Your task to perform on an android device: What time is it in London? Image 0: 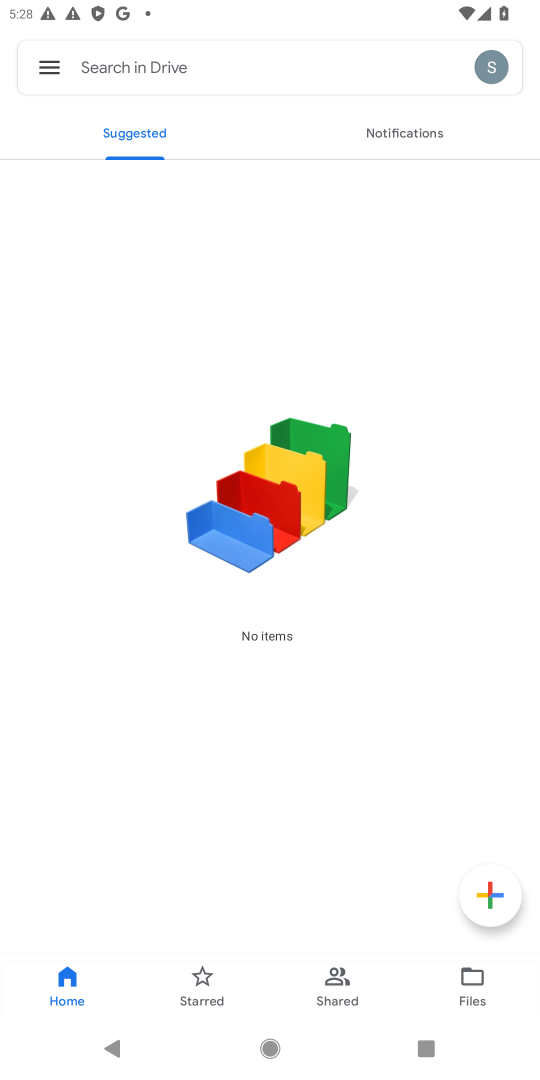
Step 0: press home button
Your task to perform on an android device: What time is it in London? Image 1: 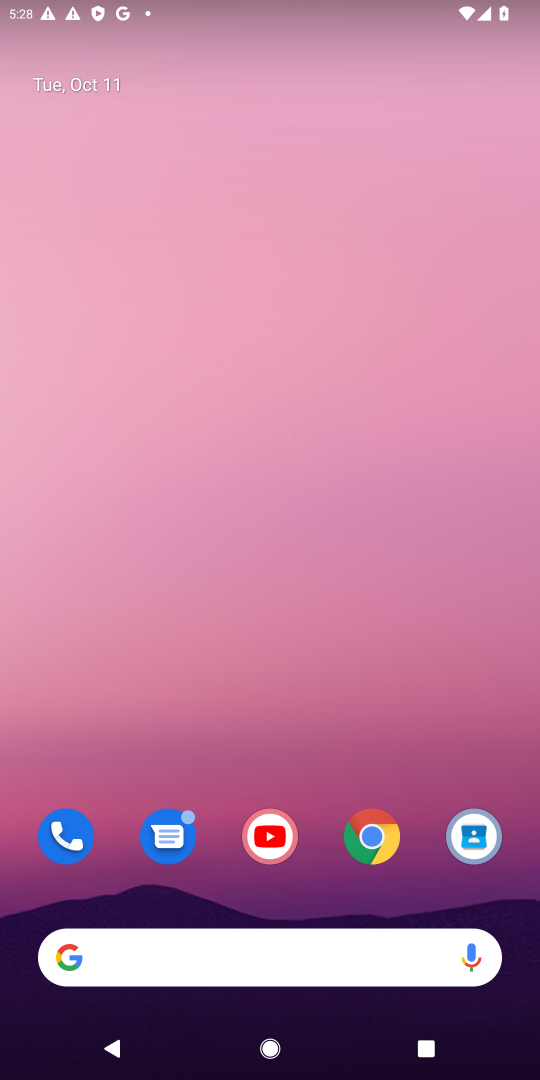
Step 1: click (369, 838)
Your task to perform on an android device: What time is it in London? Image 2: 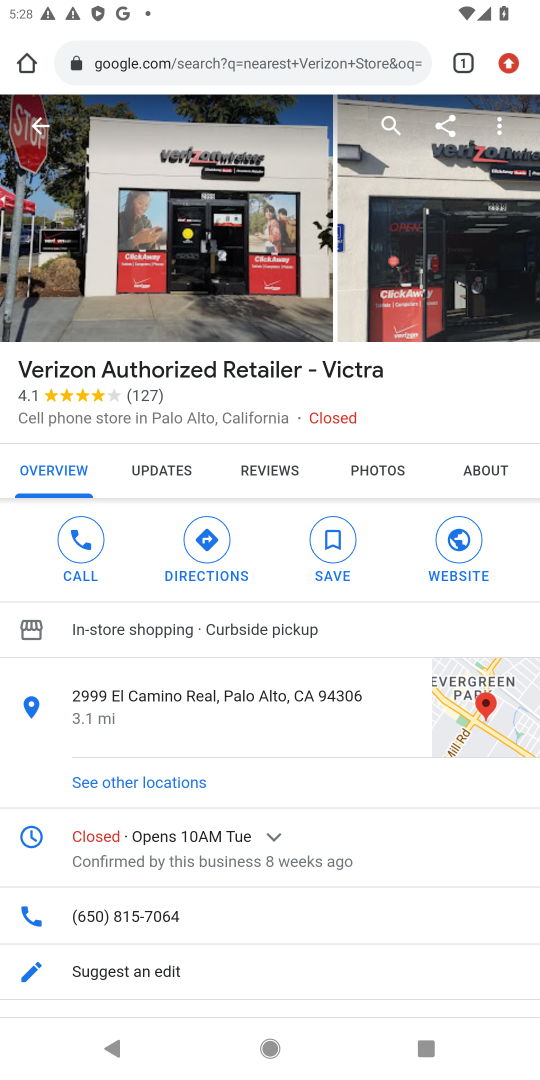
Step 2: click (341, 60)
Your task to perform on an android device: What time is it in London? Image 3: 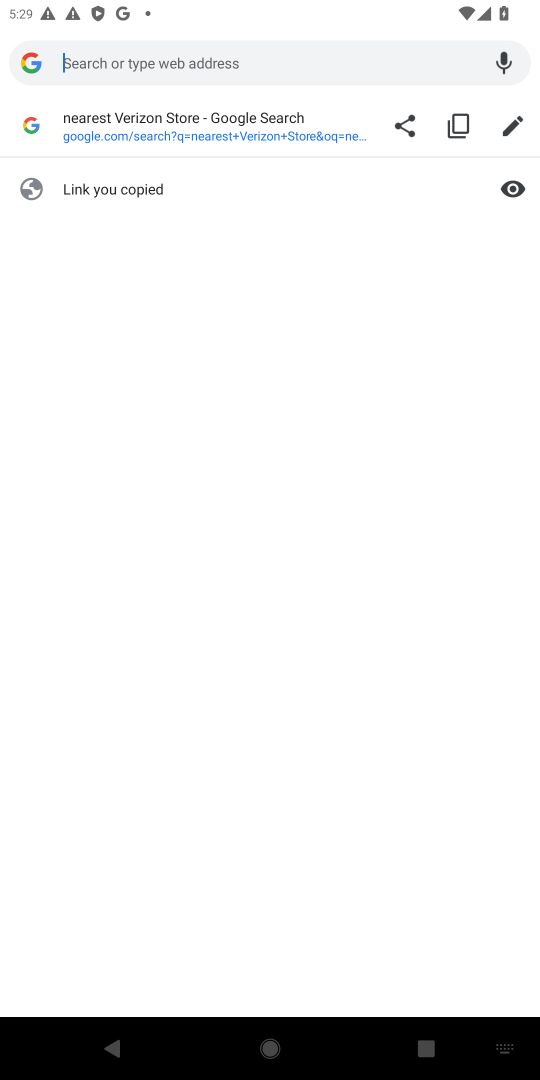
Step 3: type "What time is it in London"
Your task to perform on an android device: What time is it in London? Image 4: 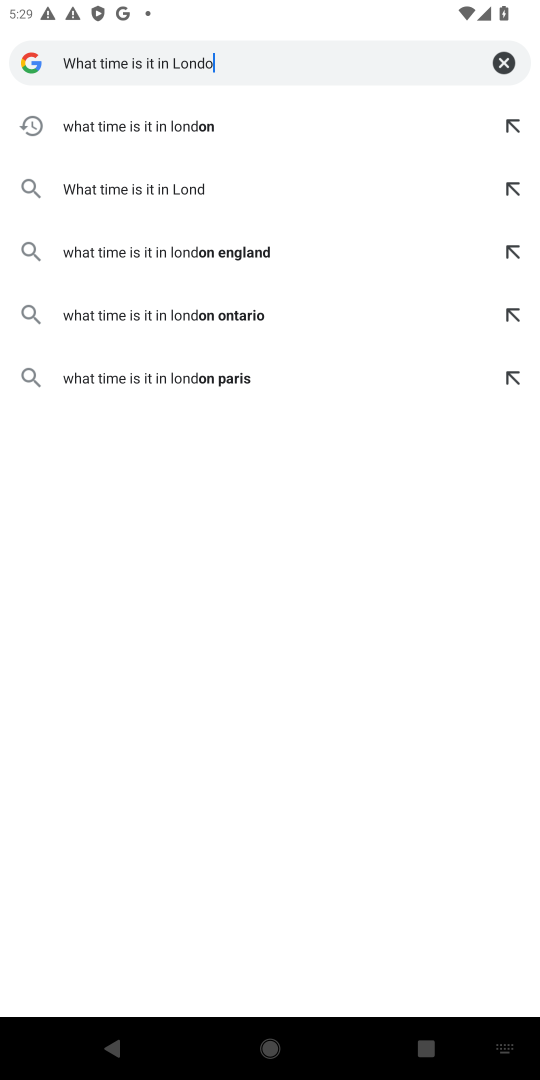
Step 4: press enter
Your task to perform on an android device: What time is it in London? Image 5: 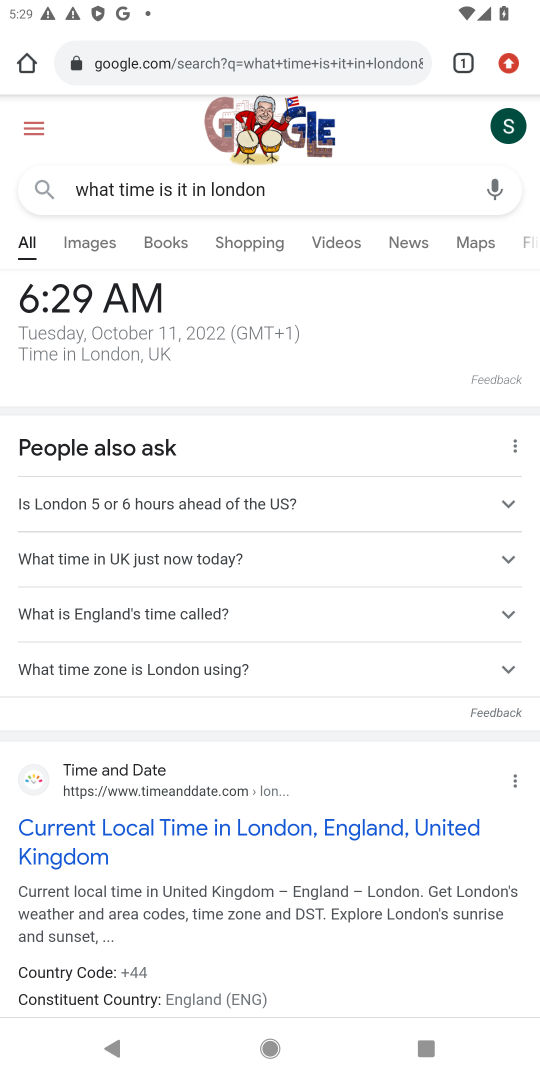
Step 5: task complete